Your task to perform on an android device: check out phone information Image 0: 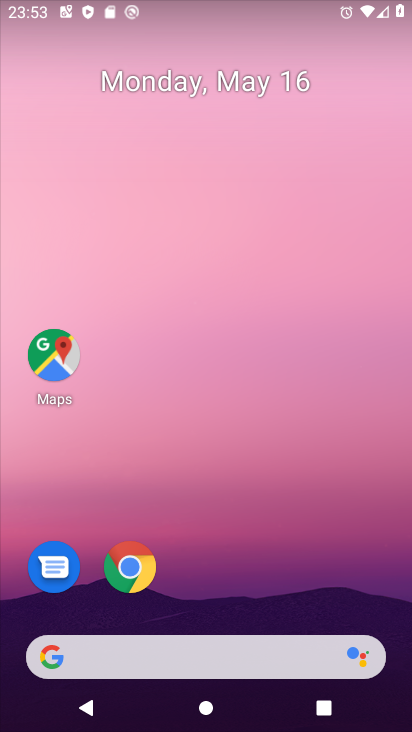
Step 0: drag from (296, 552) to (246, 221)
Your task to perform on an android device: check out phone information Image 1: 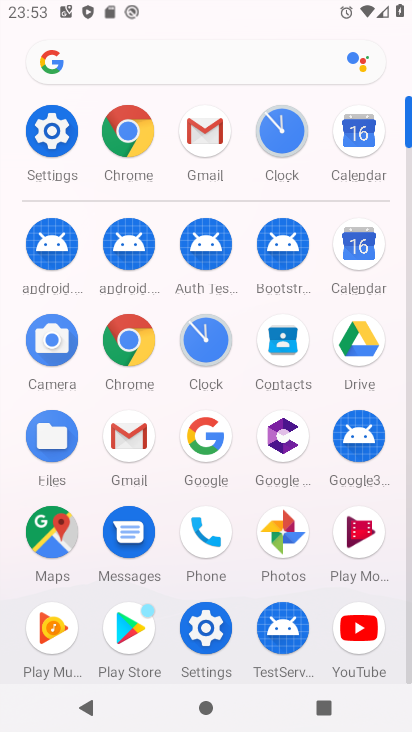
Step 1: click (46, 127)
Your task to perform on an android device: check out phone information Image 2: 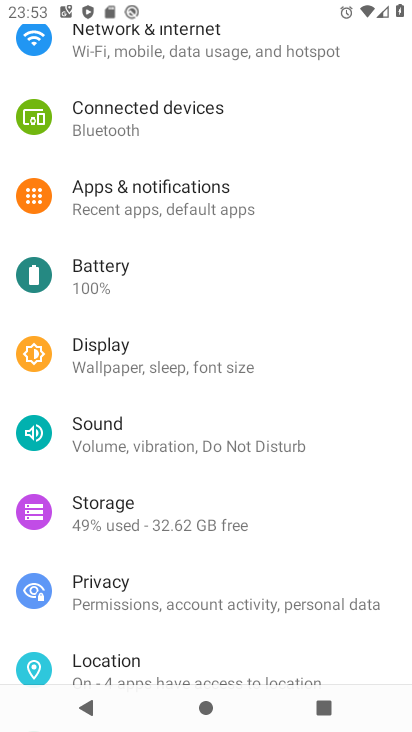
Step 2: drag from (236, 590) to (191, 235)
Your task to perform on an android device: check out phone information Image 3: 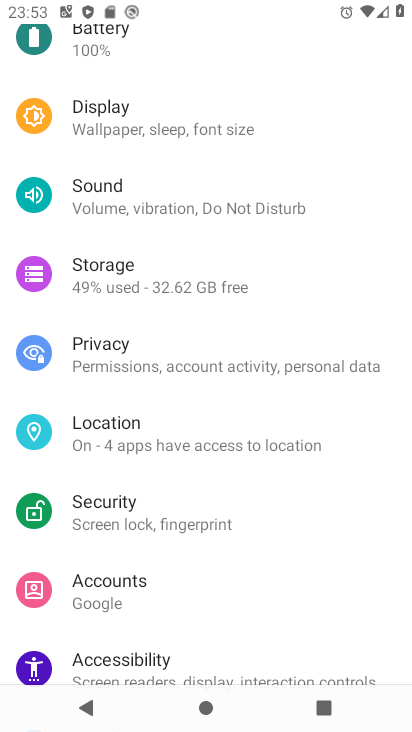
Step 3: drag from (199, 523) to (132, 226)
Your task to perform on an android device: check out phone information Image 4: 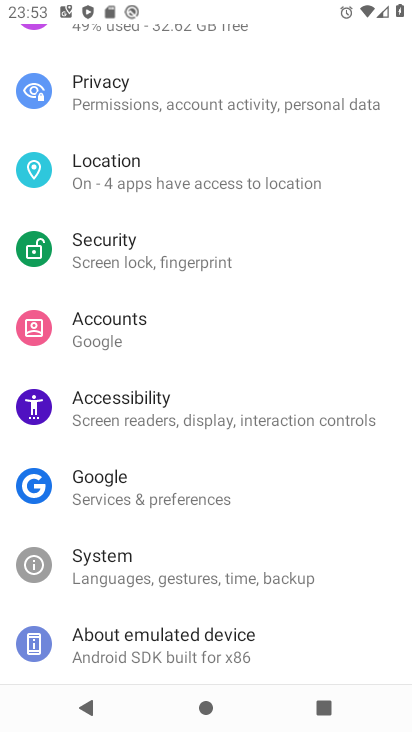
Step 4: drag from (202, 514) to (148, 239)
Your task to perform on an android device: check out phone information Image 5: 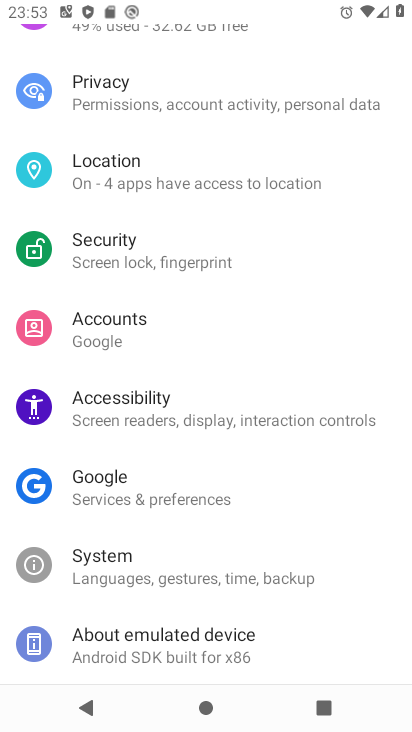
Step 5: click (178, 636)
Your task to perform on an android device: check out phone information Image 6: 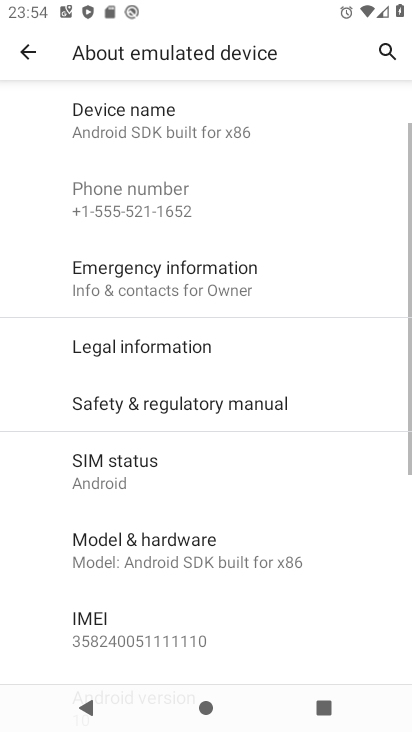
Step 6: task complete